Your task to perform on an android device: toggle notifications settings in the gmail app Image 0: 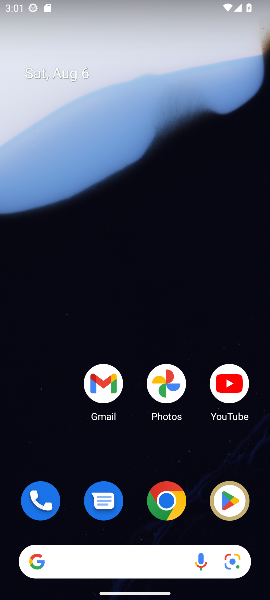
Step 0: drag from (191, 453) to (194, 112)
Your task to perform on an android device: toggle notifications settings in the gmail app Image 1: 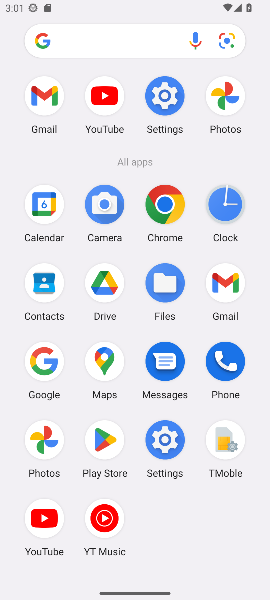
Step 1: click (218, 280)
Your task to perform on an android device: toggle notifications settings in the gmail app Image 2: 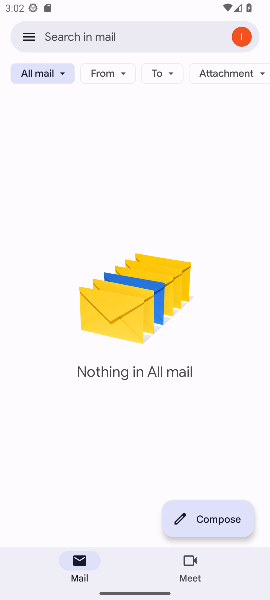
Step 2: click (22, 29)
Your task to perform on an android device: toggle notifications settings in the gmail app Image 3: 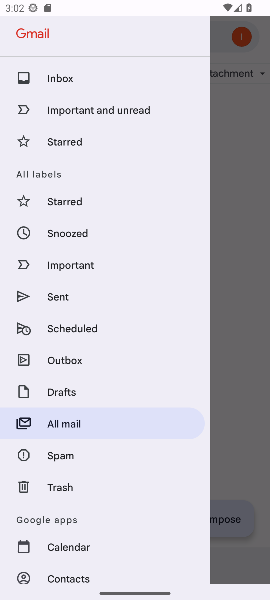
Step 3: drag from (95, 547) to (128, 159)
Your task to perform on an android device: toggle notifications settings in the gmail app Image 4: 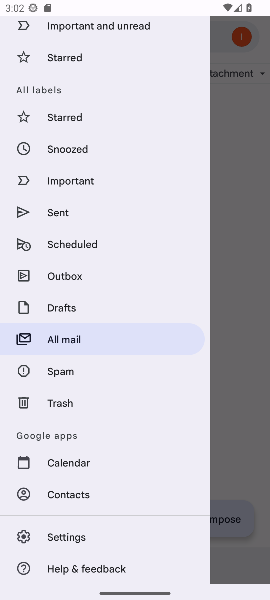
Step 4: click (69, 533)
Your task to perform on an android device: toggle notifications settings in the gmail app Image 5: 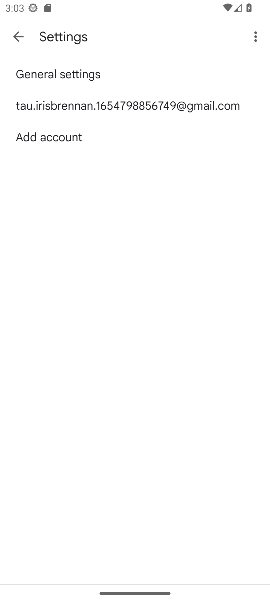
Step 5: click (119, 115)
Your task to perform on an android device: toggle notifications settings in the gmail app Image 6: 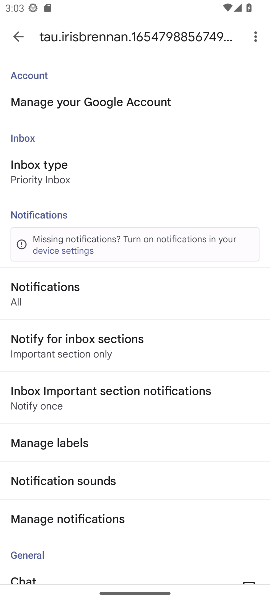
Step 6: click (114, 523)
Your task to perform on an android device: toggle notifications settings in the gmail app Image 7: 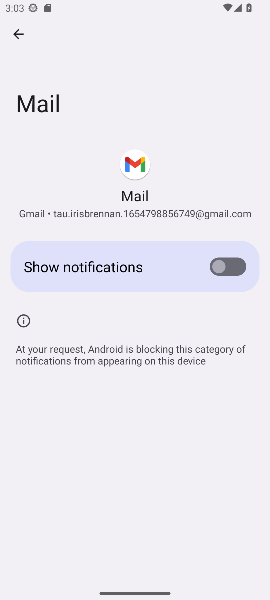
Step 7: click (230, 253)
Your task to perform on an android device: toggle notifications settings in the gmail app Image 8: 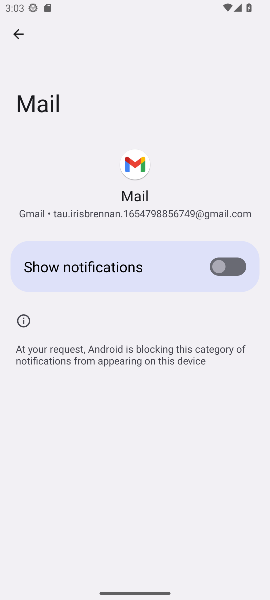
Step 8: task complete